Your task to perform on an android device: turn notification dots on Image 0: 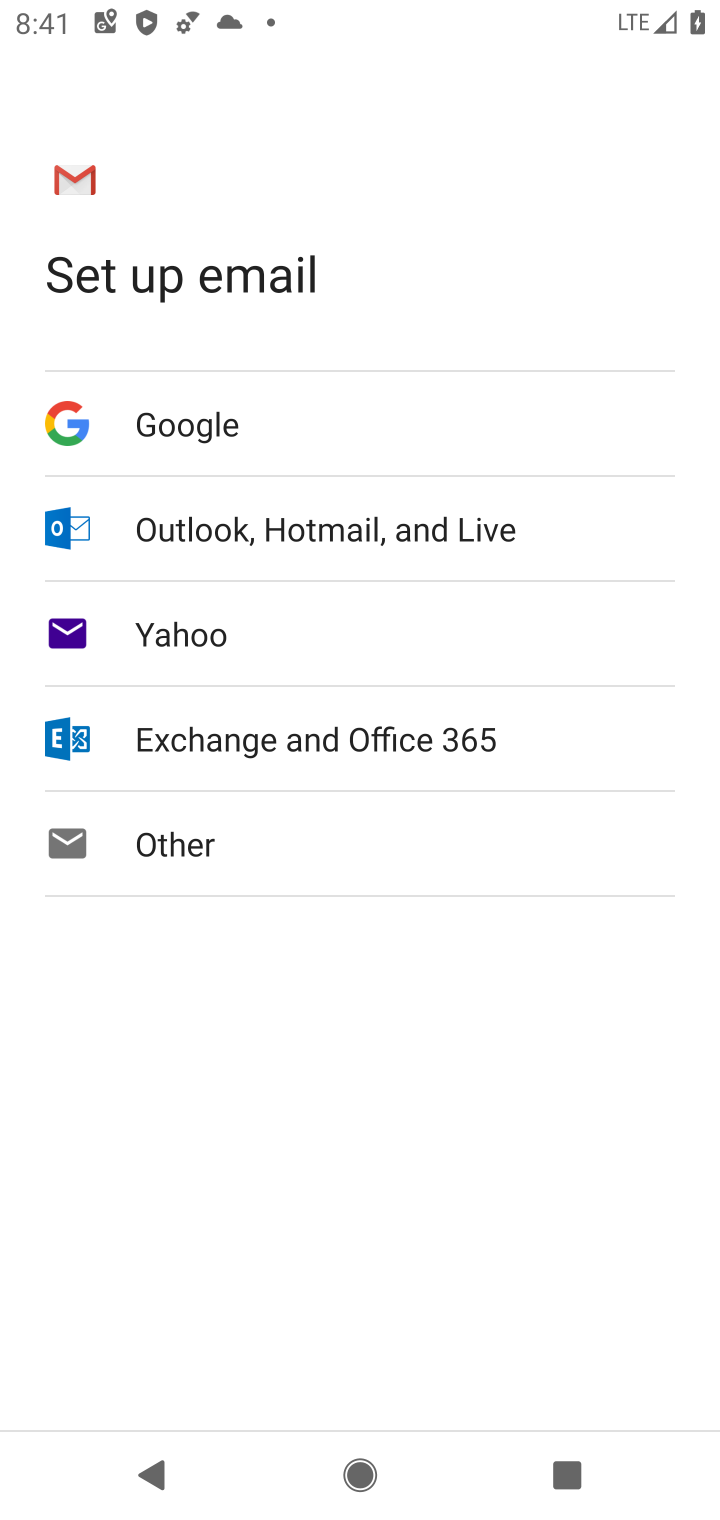
Step 0: press home button
Your task to perform on an android device: turn notification dots on Image 1: 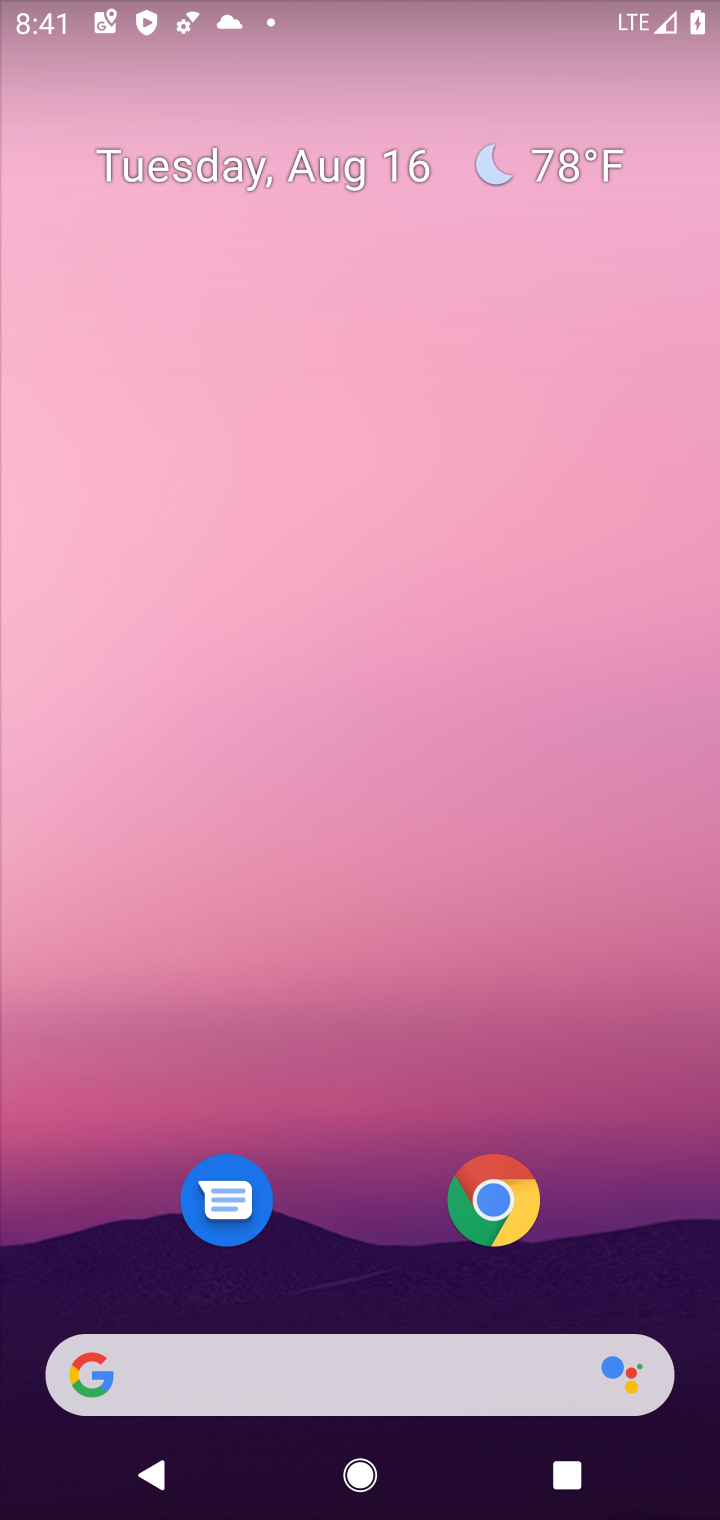
Step 1: drag from (646, 1265) to (561, 206)
Your task to perform on an android device: turn notification dots on Image 2: 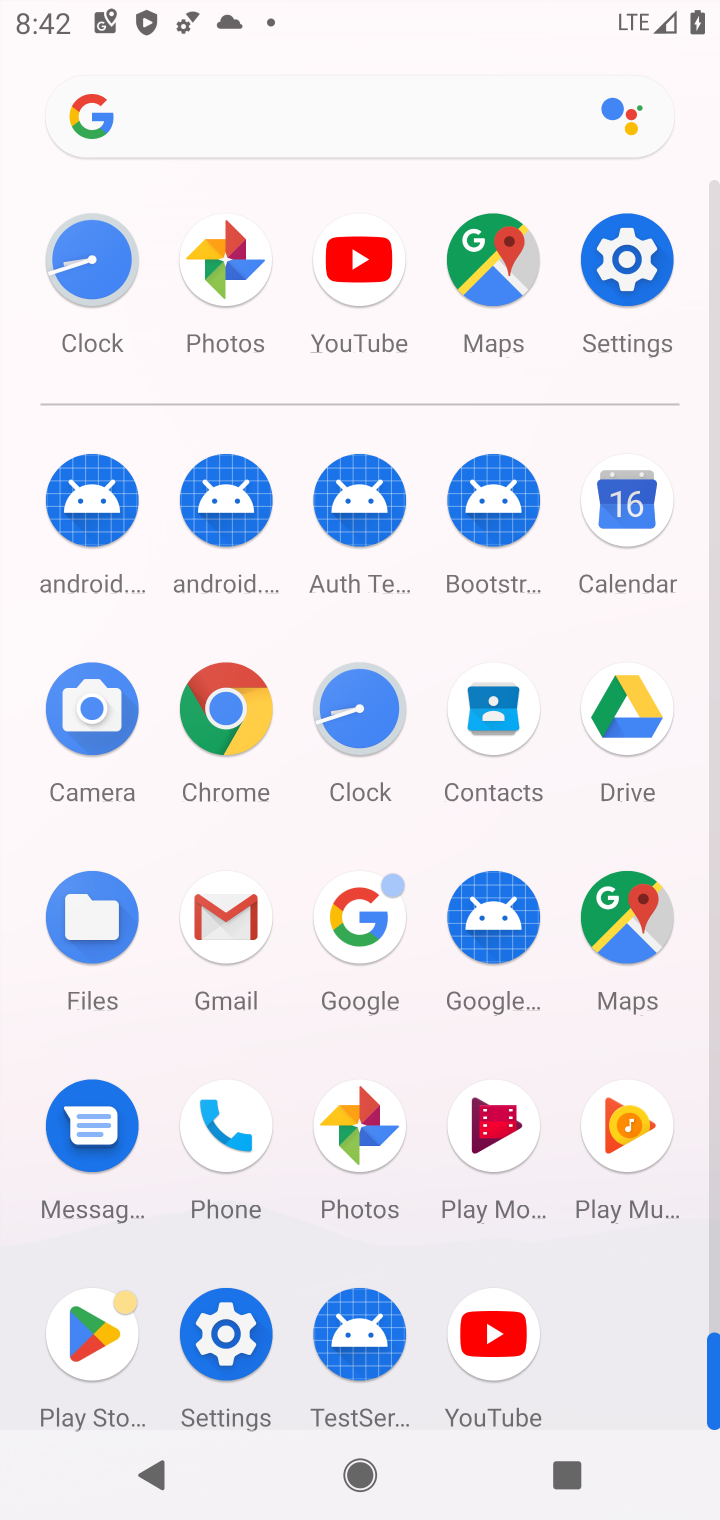
Step 2: click (226, 1336)
Your task to perform on an android device: turn notification dots on Image 3: 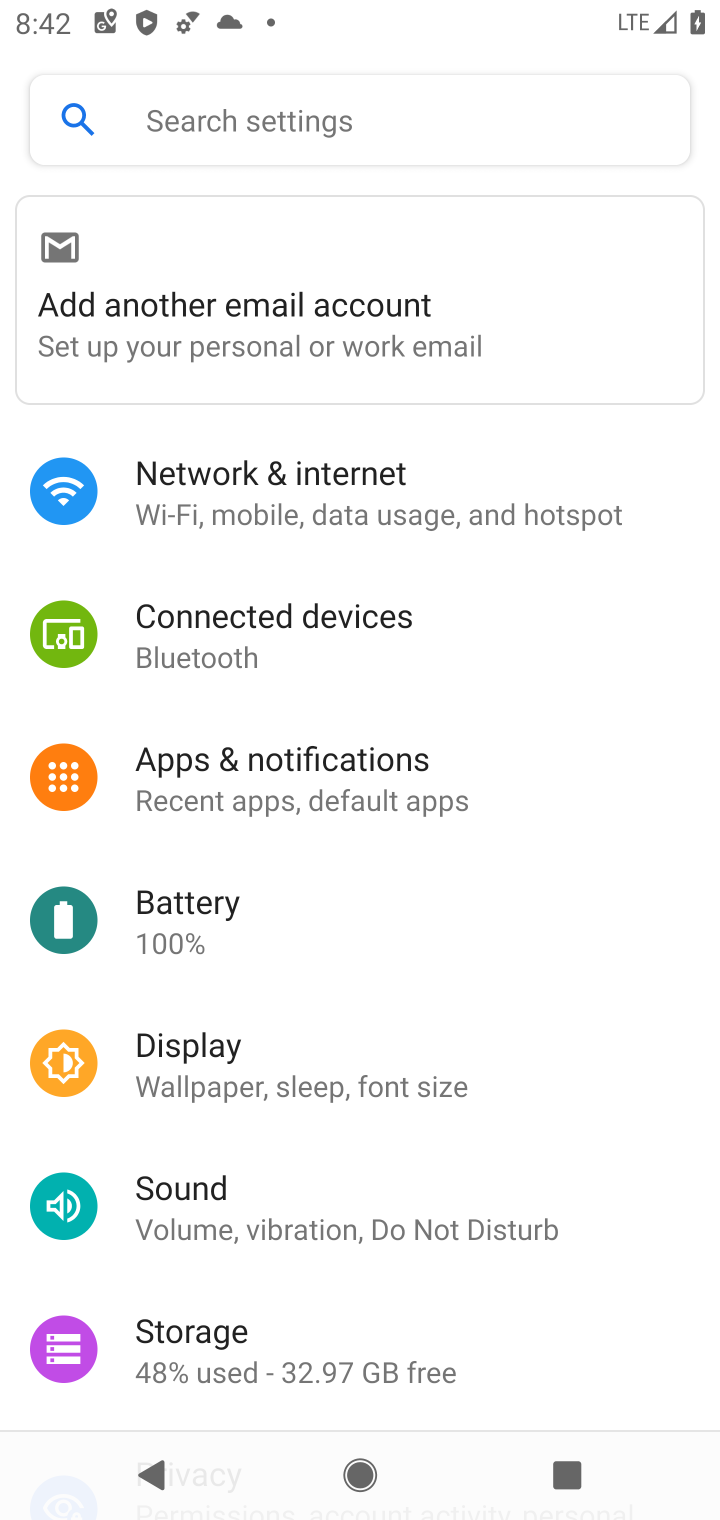
Step 3: click (271, 759)
Your task to perform on an android device: turn notification dots on Image 4: 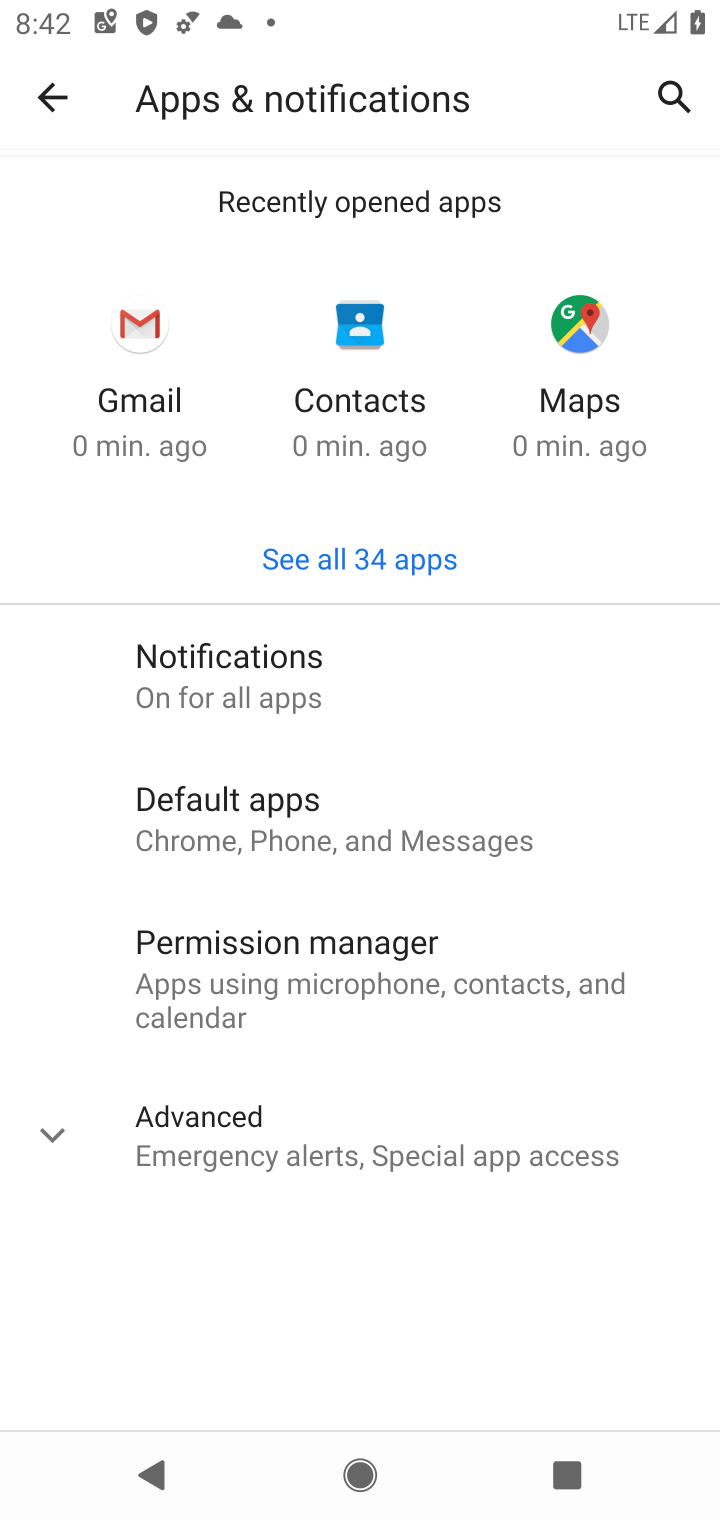
Step 4: click (204, 671)
Your task to perform on an android device: turn notification dots on Image 5: 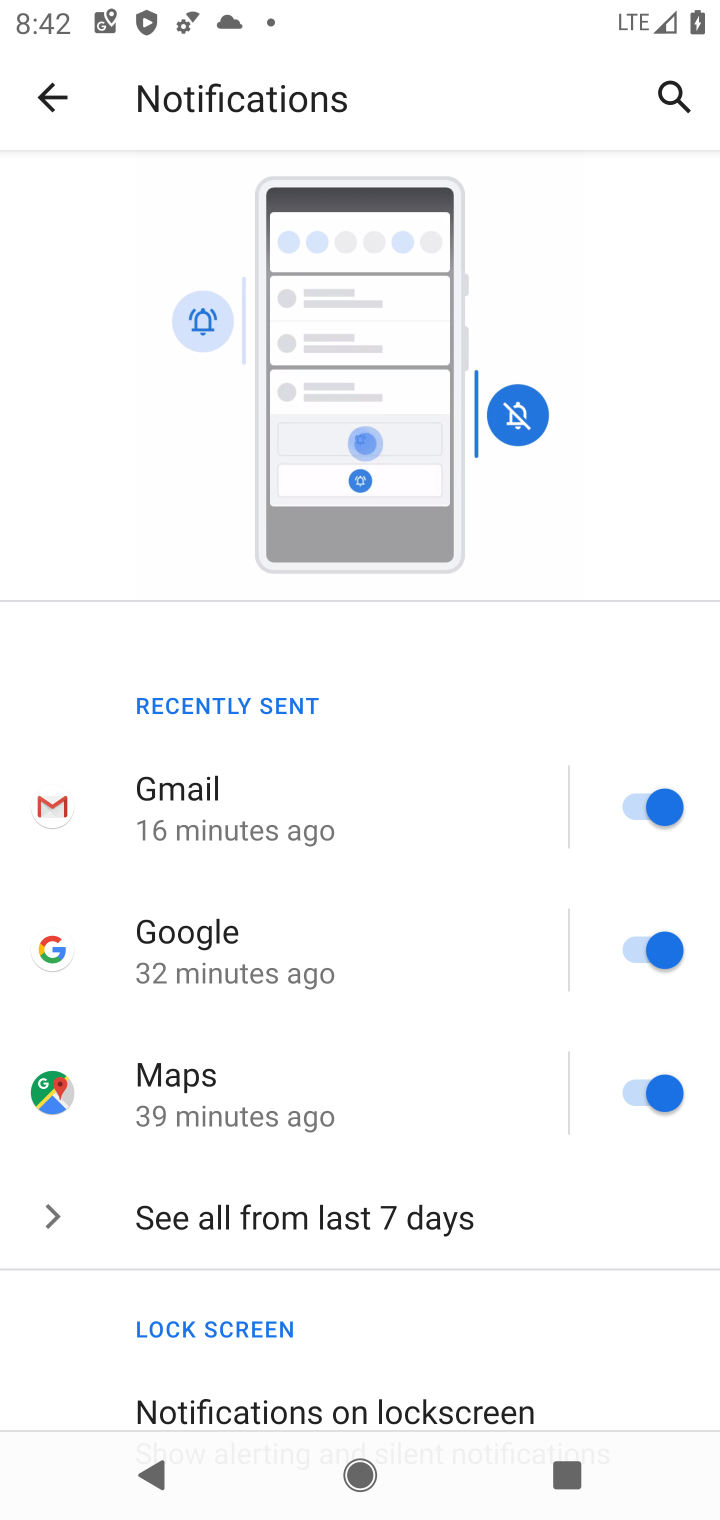
Step 5: drag from (472, 1297) to (606, 365)
Your task to perform on an android device: turn notification dots on Image 6: 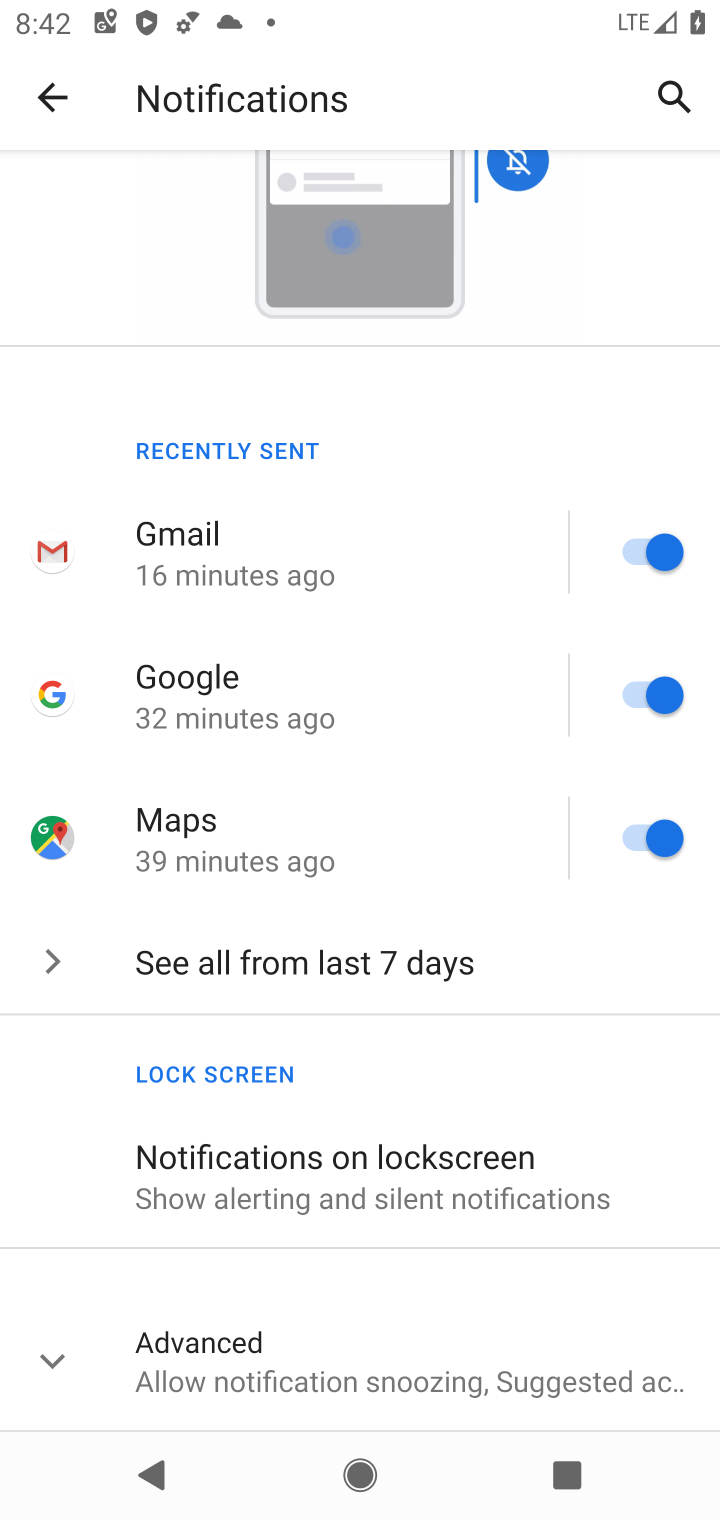
Step 6: drag from (534, 708) to (531, 426)
Your task to perform on an android device: turn notification dots on Image 7: 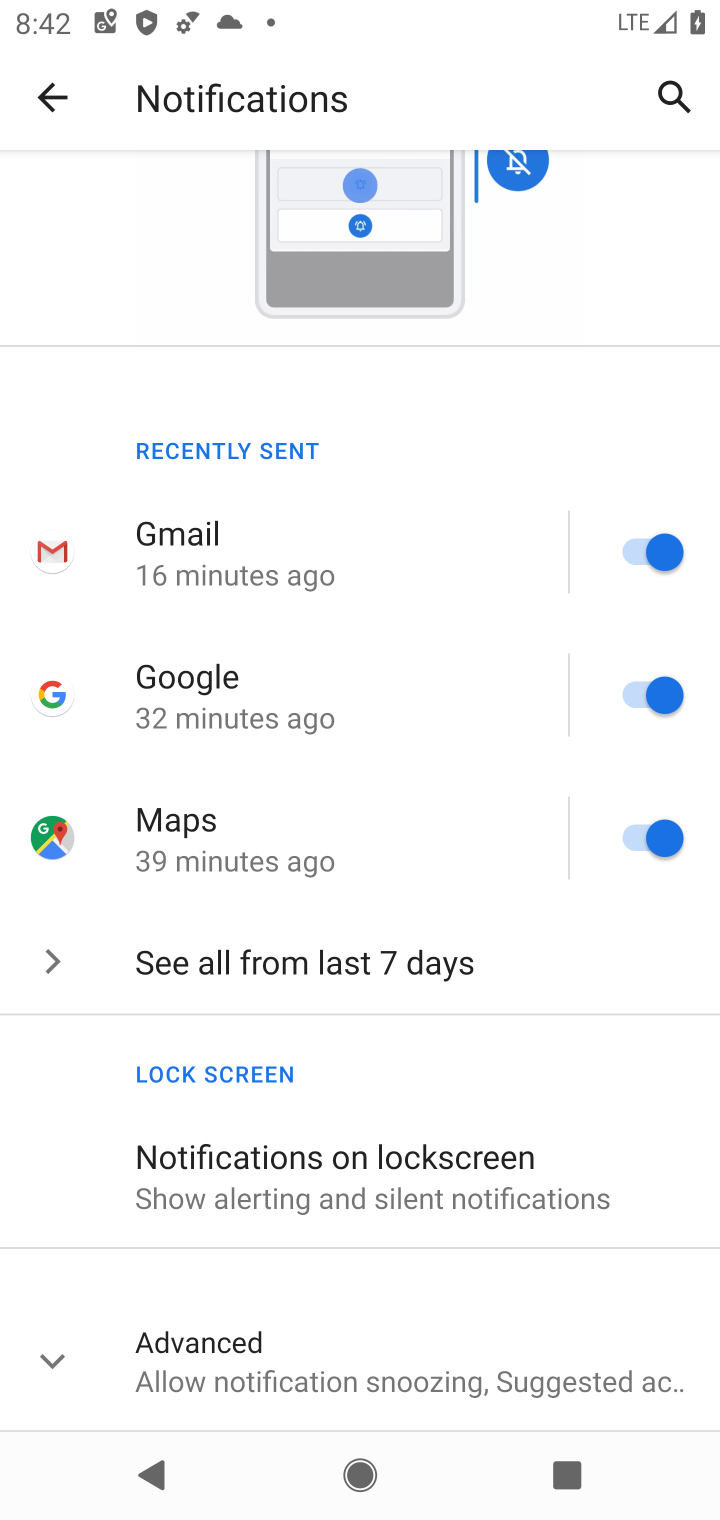
Step 7: click (50, 1363)
Your task to perform on an android device: turn notification dots on Image 8: 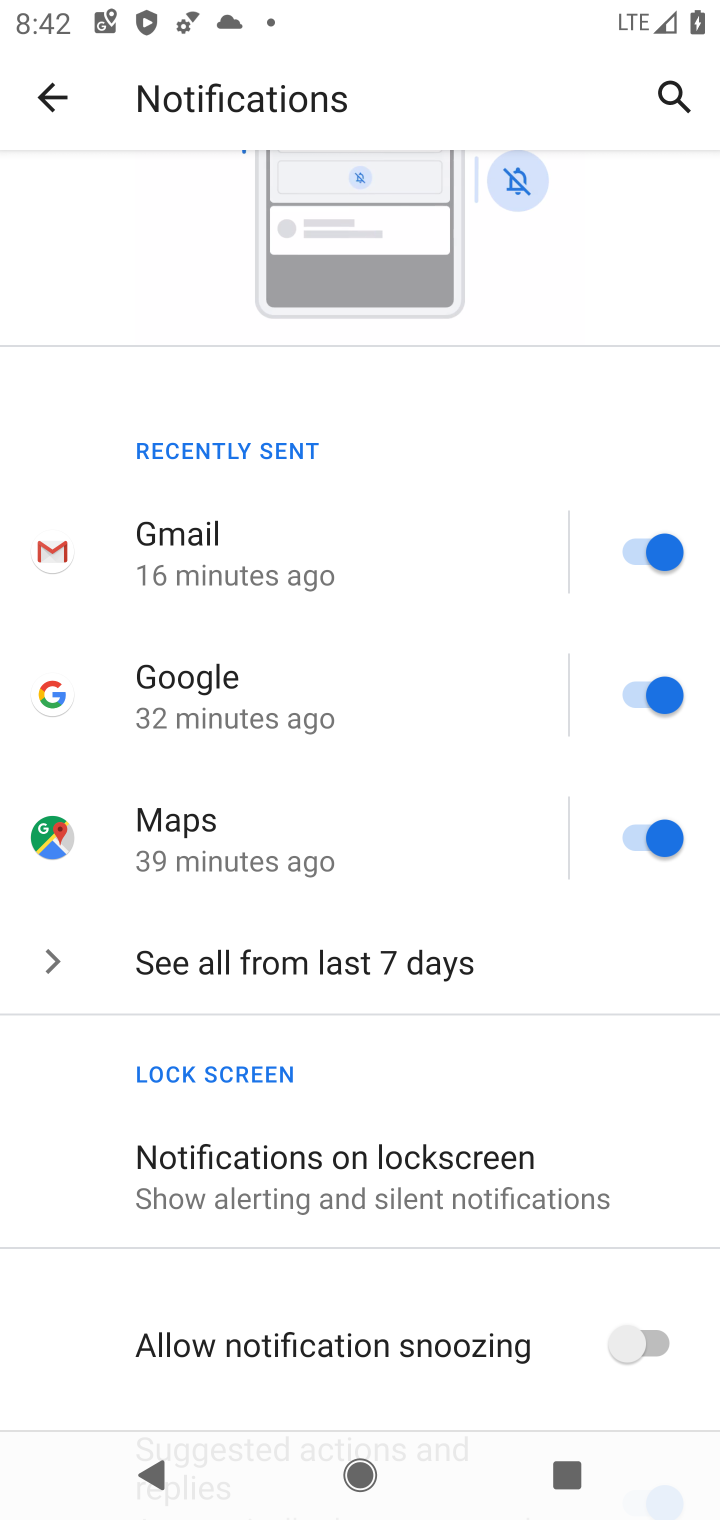
Step 8: task complete